Your task to perform on an android device: turn on the 12-hour format for clock Image 0: 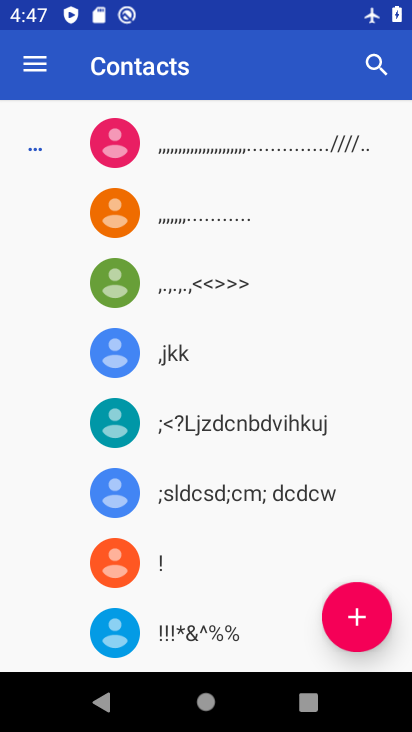
Step 0: press home button
Your task to perform on an android device: turn on the 12-hour format for clock Image 1: 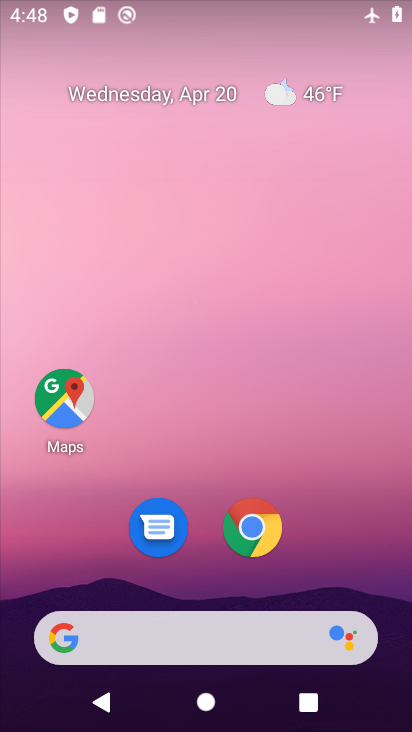
Step 1: drag from (187, 602) to (291, 126)
Your task to perform on an android device: turn on the 12-hour format for clock Image 2: 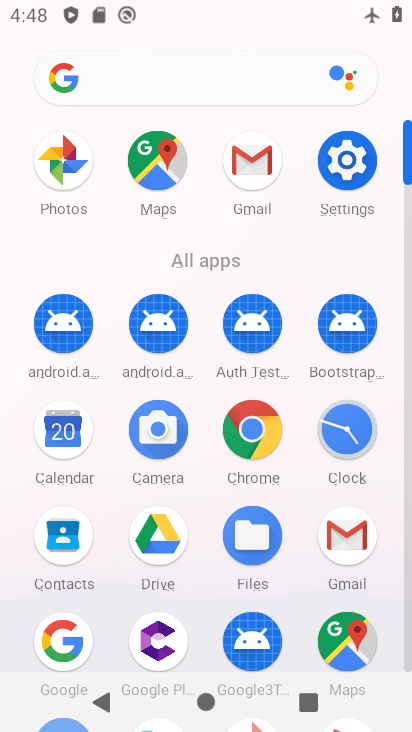
Step 2: click (340, 458)
Your task to perform on an android device: turn on the 12-hour format for clock Image 3: 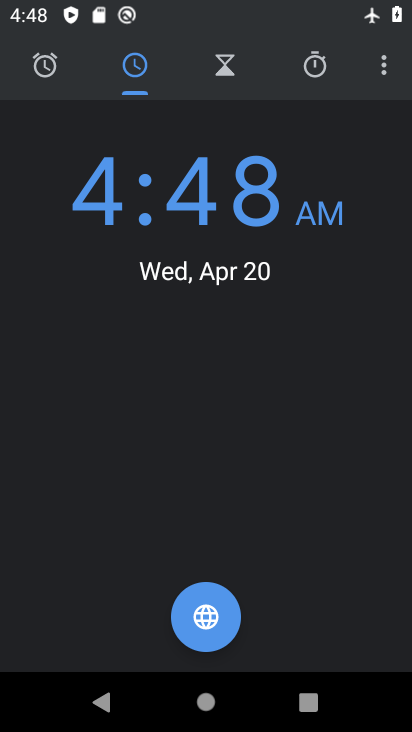
Step 3: click (385, 81)
Your task to perform on an android device: turn on the 12-hour format for clock Image 4: 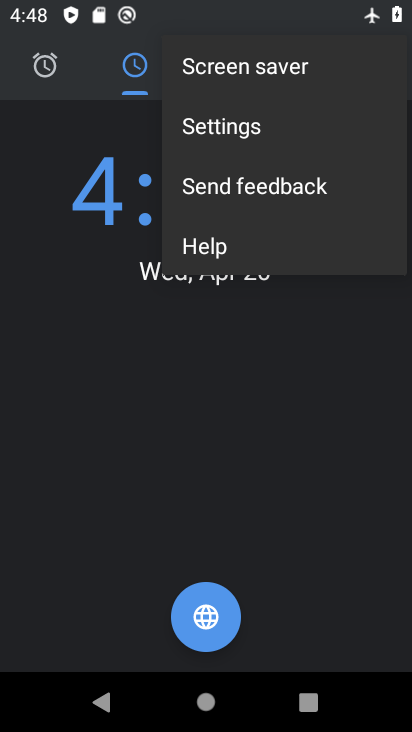
Step 4: click (265, 137)
Your task to perform on an android device: turn on the 12-hour format for clock Image 5: 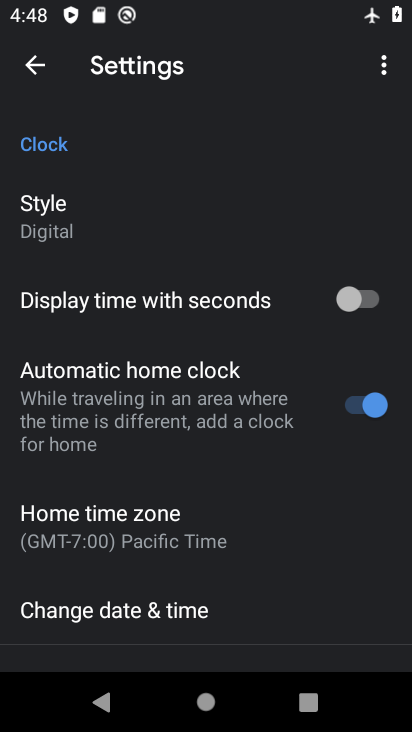
Step 5: click (166, 606)
Your task to perform on an android device: turn on the 12-hour format for clock Image 6: 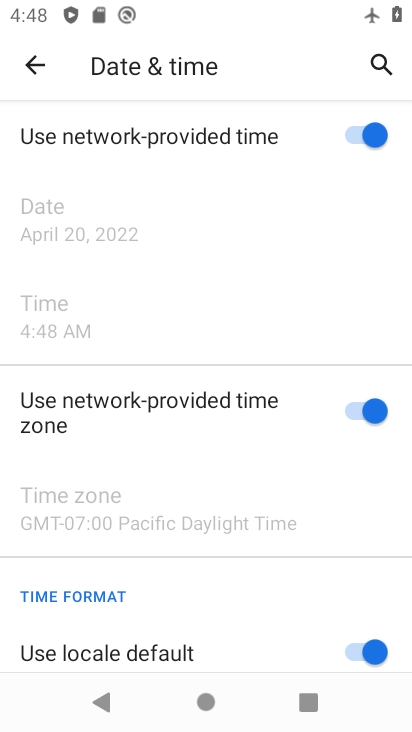
Step 6: task complete